Your task to perform on an android device: Go to privacy settings Image 0: 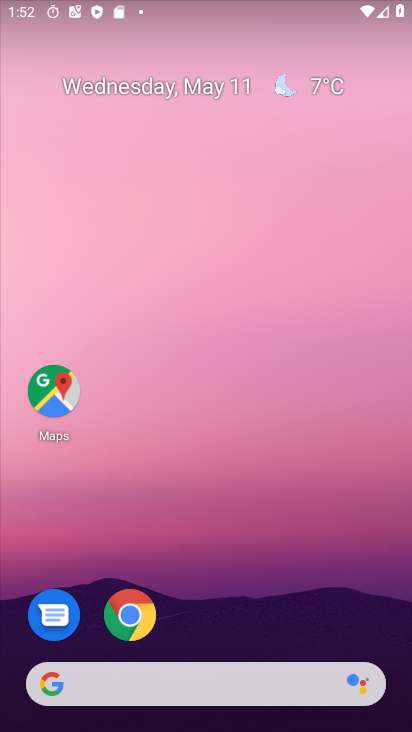
Step 0: drag from (192, 658) to (230, 230)
Your task to perform on an android device: Go to privacy settings Image 1: 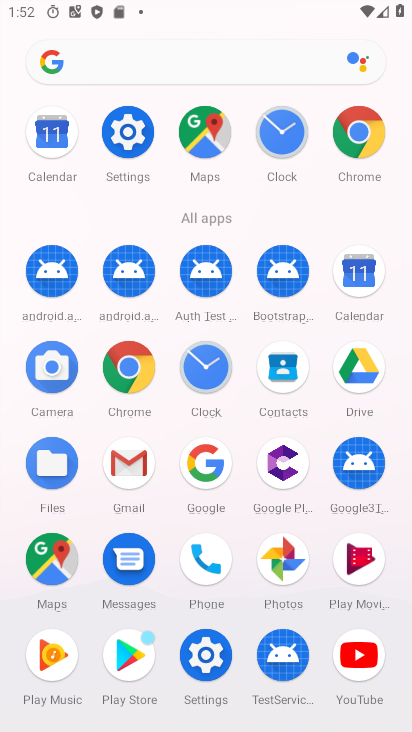
Step 1: click (128, 126)
Your task to perform on an android device: Go to privacy settings Image 2: 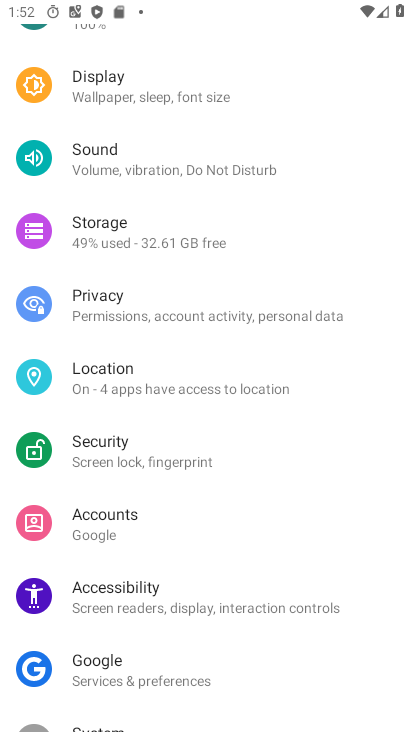
Step 2: click (143, 321)
Your task to perform on an android device: Go to privacy settings Image 3: 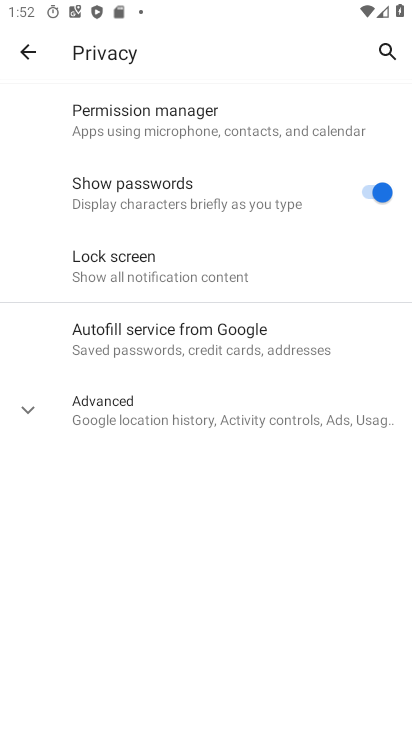
Step 3: task complete